Your task to perform on an android device: Open Wikipedia Image 0: 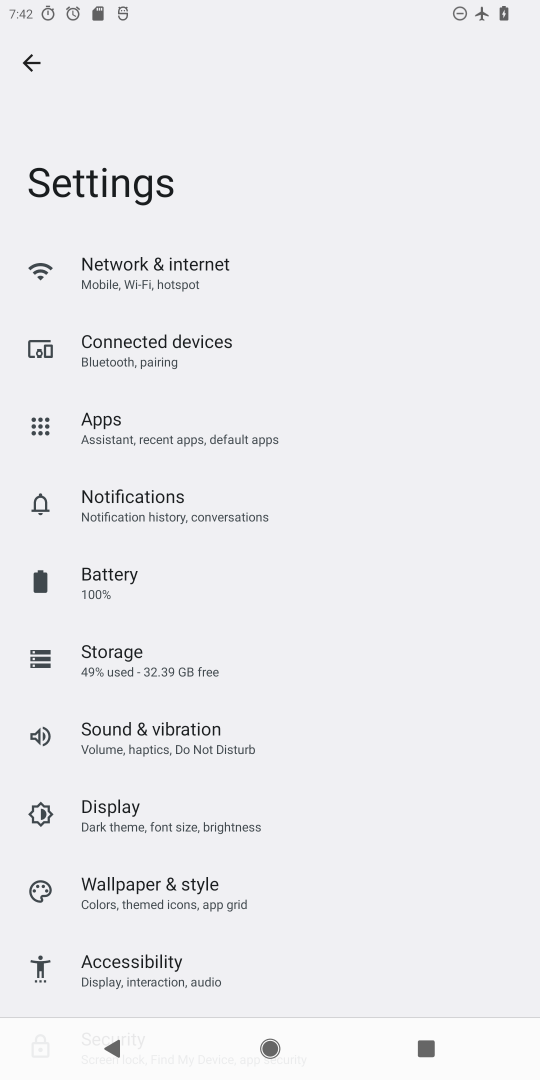
Step 0: press home button
Your task to perform on an android device: Open Wikipedia Image 1: 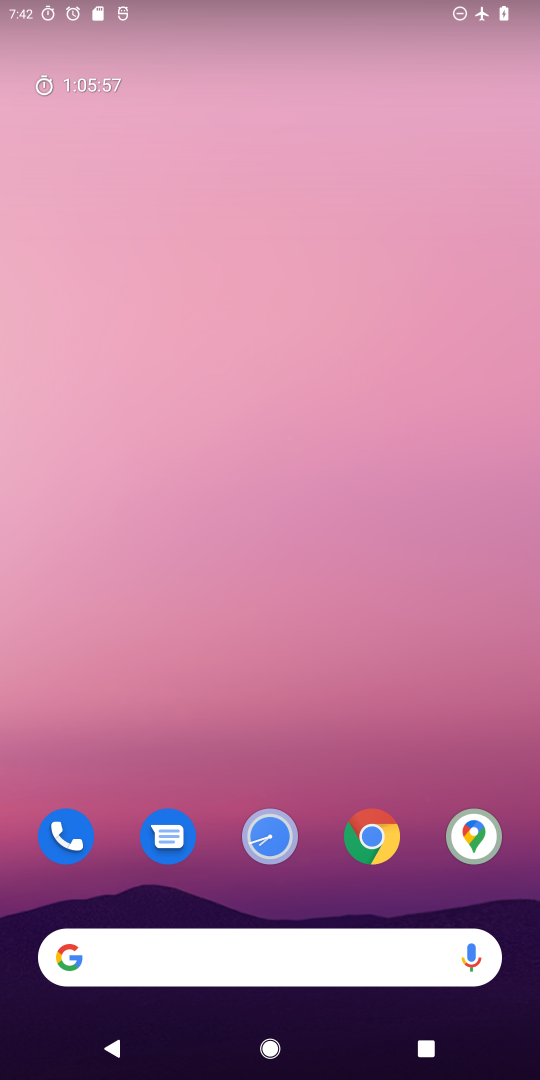
Step 1: drag from (352, 686) to (382, 130)
Your task to perform on an android device: Open Wikipedia Image 2: 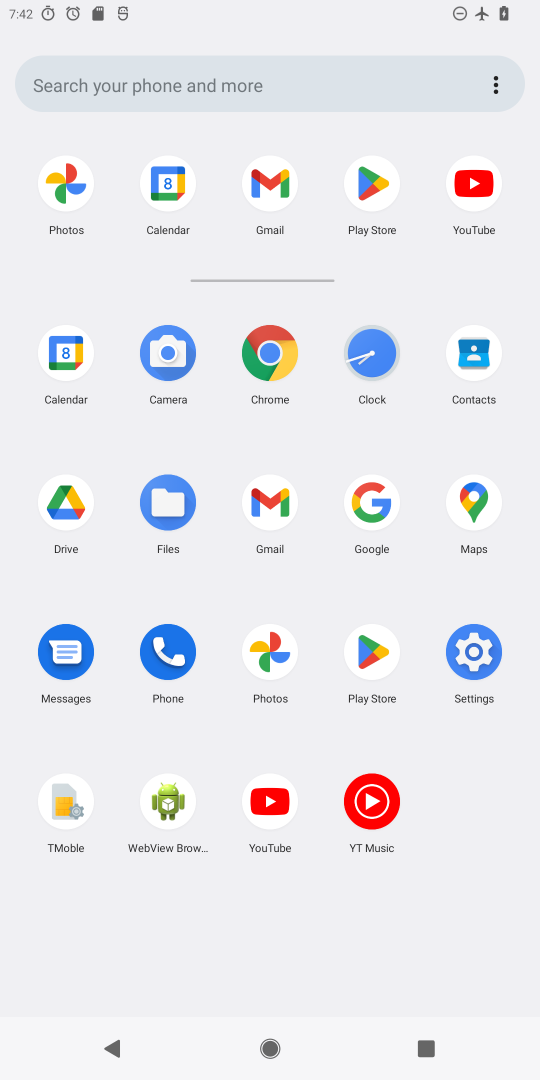
Step 2: click (289, 361)
Your task to perform on an android device: Open Wikipedia Image 3: 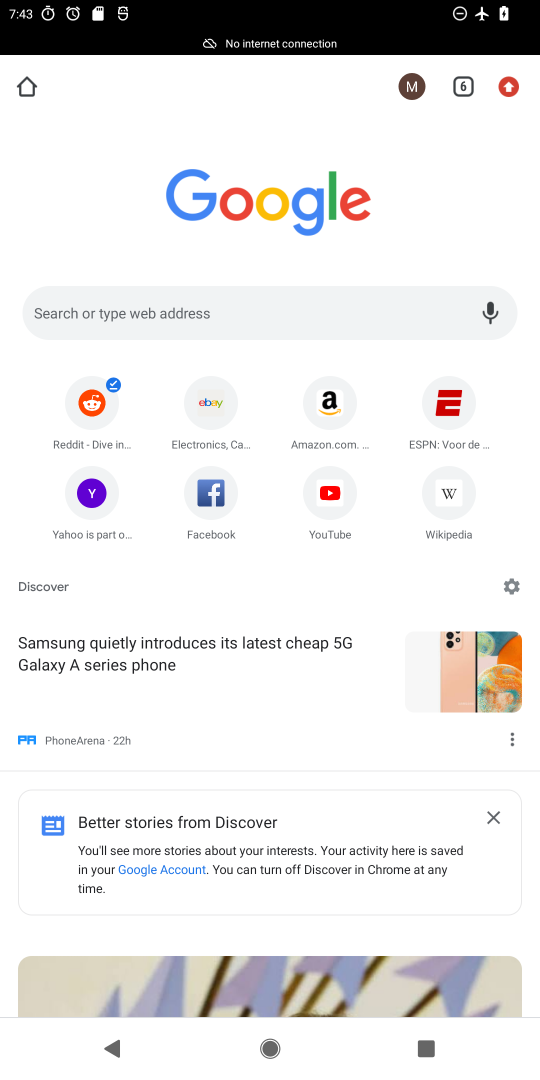
Step 3: click (408, 485)
Your task to perform on an android device: Open Wikipedia Image 4: 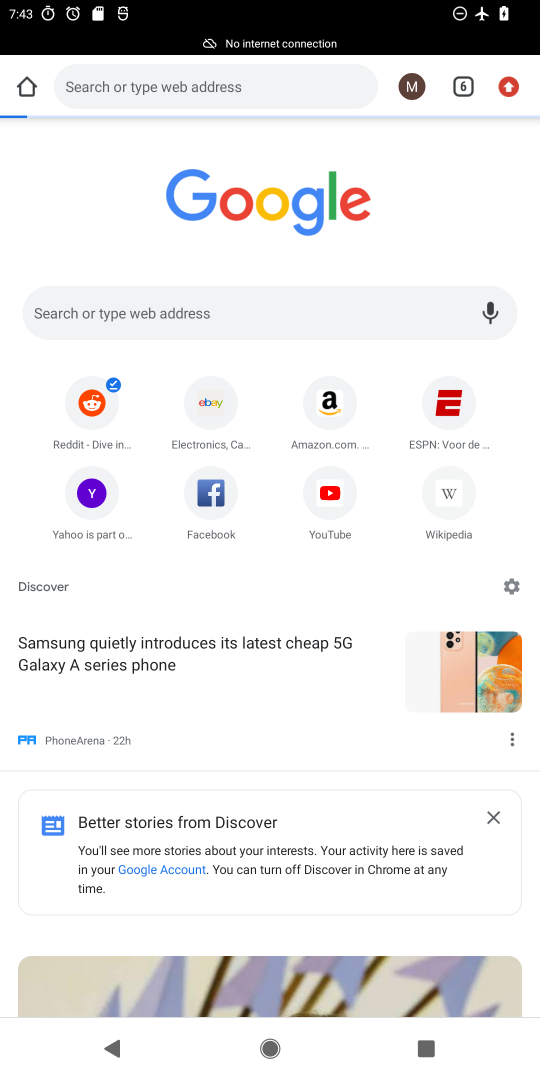
Step 4: click (458, 507)
Your task to perform on an android device: Open Wikipedia Image 5: 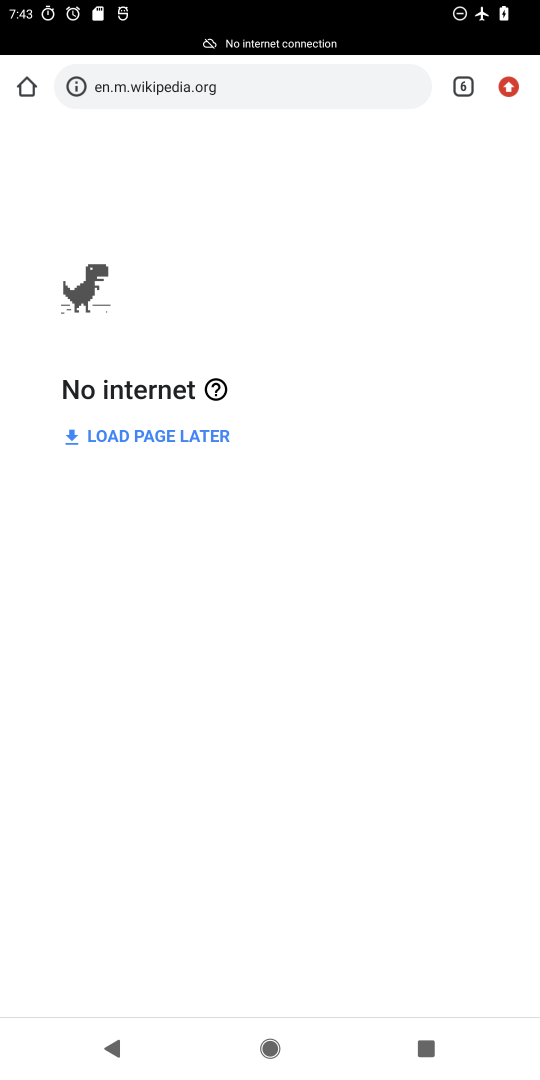
Step 5: task complete